Your task to perform on an android device: Open calendar and show me the second week of next month Image 0: 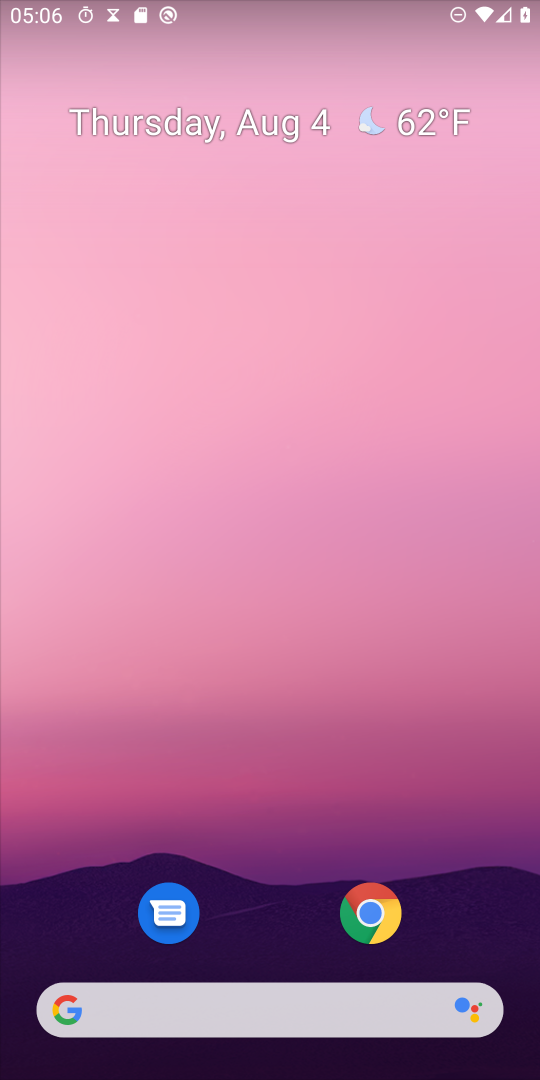
Step 0: drag from (206, 1007) to (282, 112)
Your task to perform on an android device: Open calendar and show me the second week of next month Image 1: 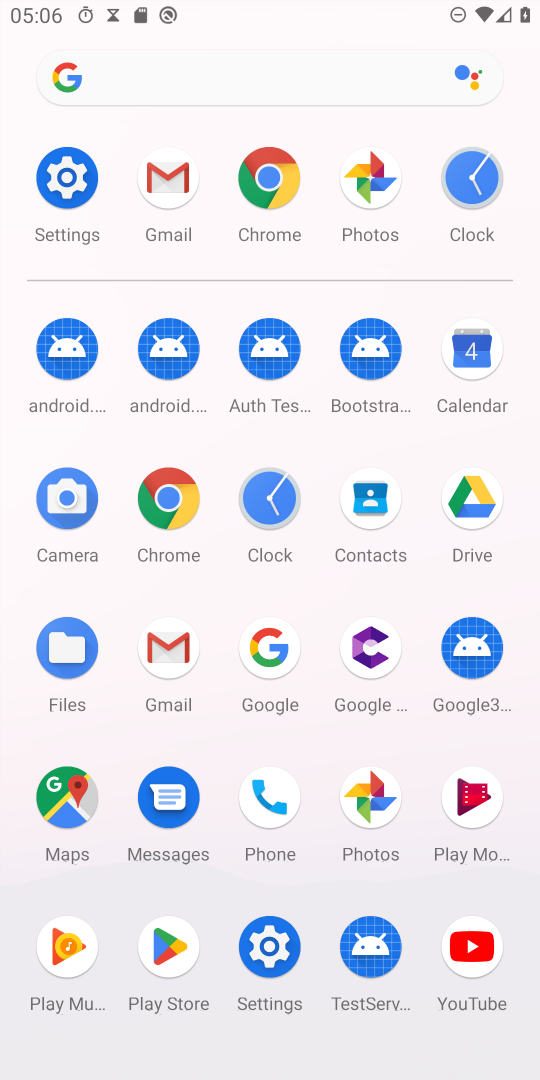
Step 1: click (460, 373)
Your task to perform on an android device: Open calendar and show me the second week of next month Image 2: 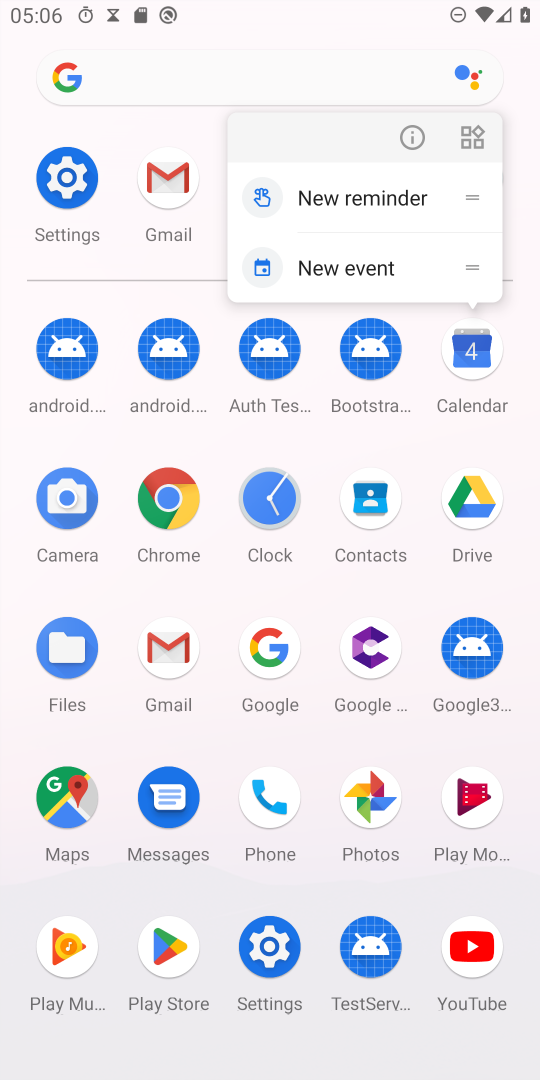
Step 2: click (481, 352)
Your task to perform on an android device: Open calendar and show me the second week of next month Image 3: 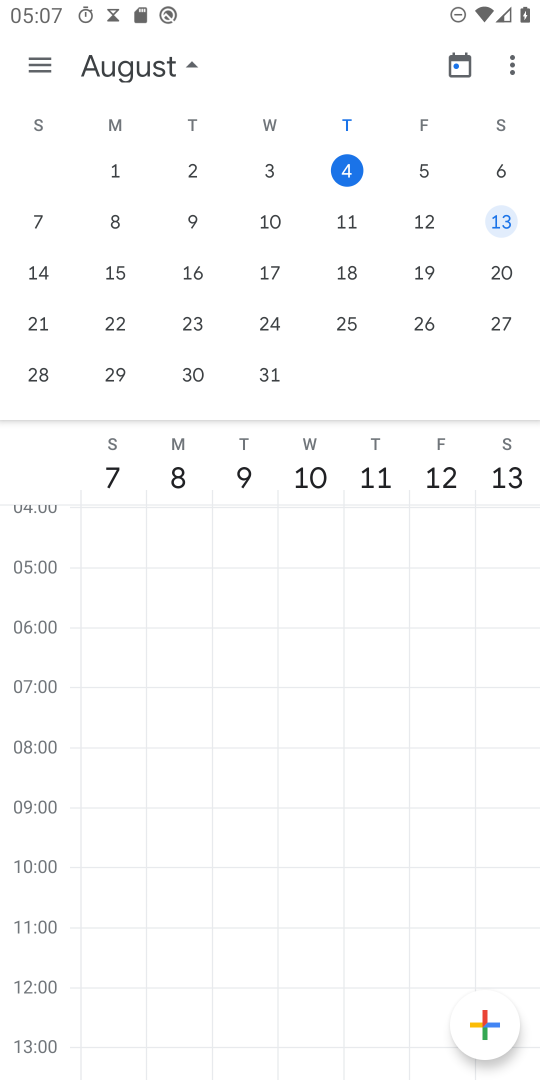
Step 3: click (348, 227)
Your task to perform on an android device: Open calendar and show me the second week of next month Image 4: 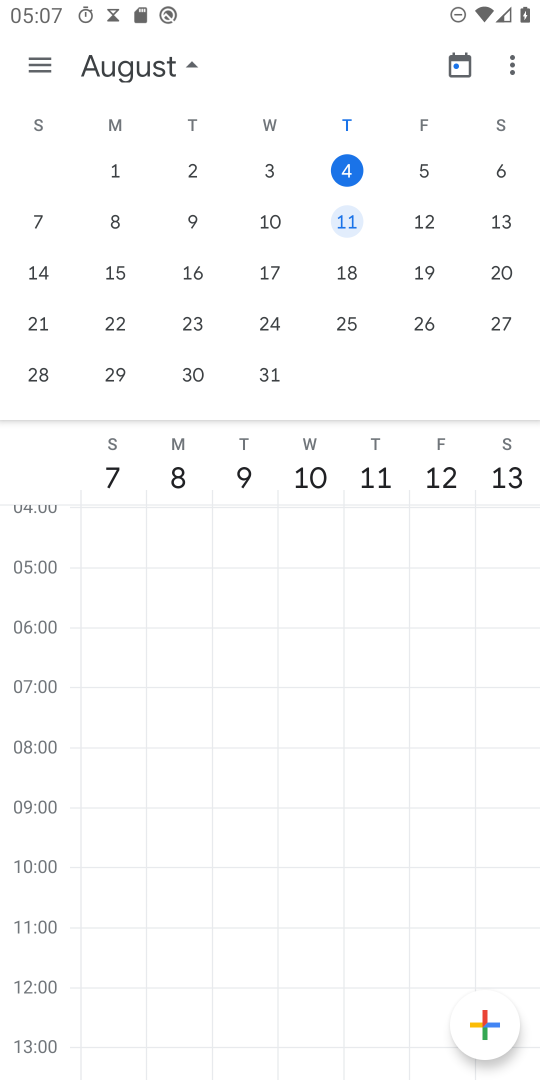
Step 4: task complete